Your task to perform on an android device: choose inbox layout in the gmail app Image 0: 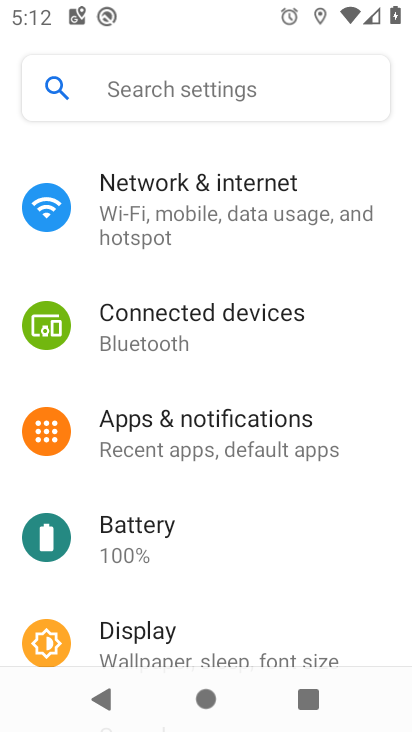
Step 0: press home button
Your task to perform on an android device: choose inbox layout in the gmail app Image 1: 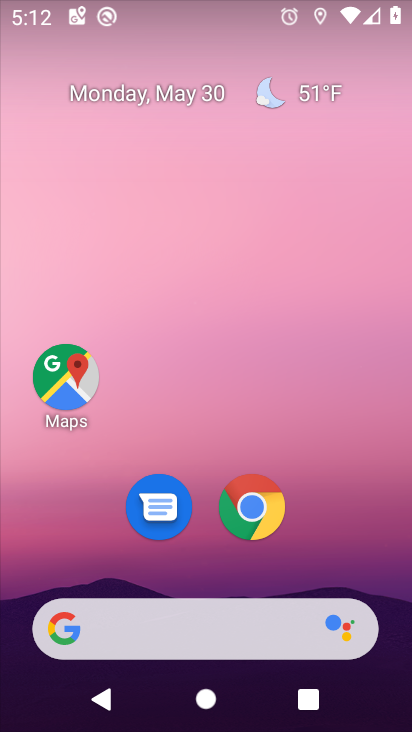
Step 1: drag from (295, 496) to (285, 186)
Your task to perform on an android device: choose inbox layout in the gmail app Image 2: 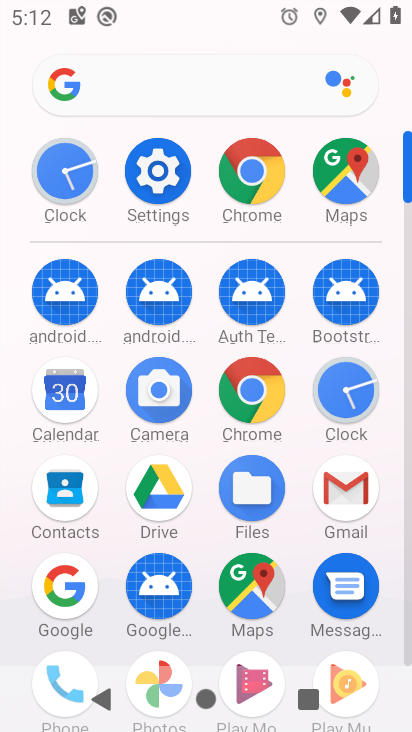
Step 2: click (339, 483)
Your task to perform on an android device: choose inbox layout in the gmail app Image 3: 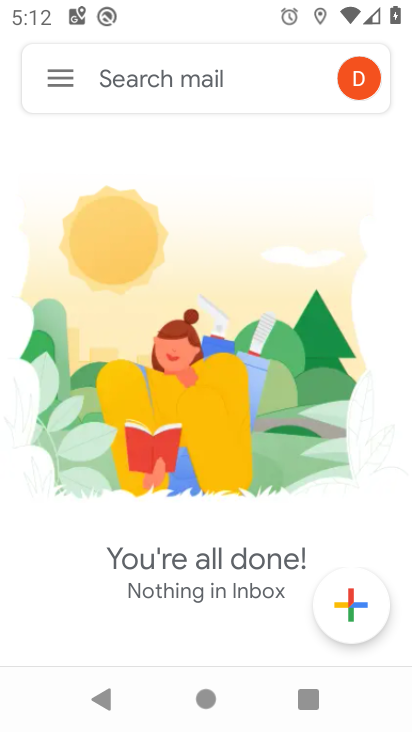
Step 3: click (49, 69)
Your task to perform on an android device: choose inbox layout in the gmail app Image 4: 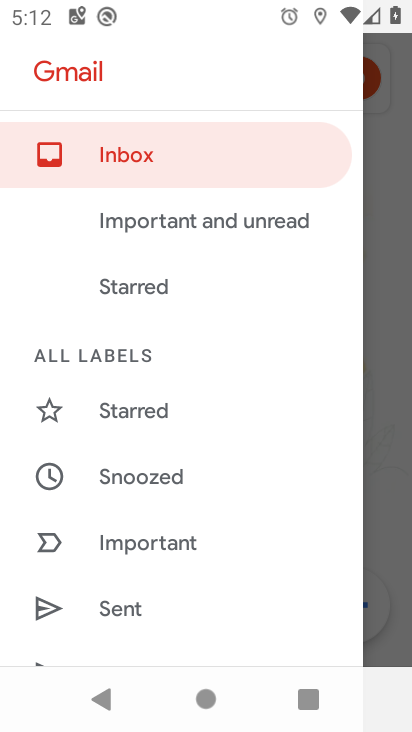
Step 4: drag from (237, 527) to (143, 37)
Your task to perform on an android device: choose inbox layout in the gmail app Image 5: 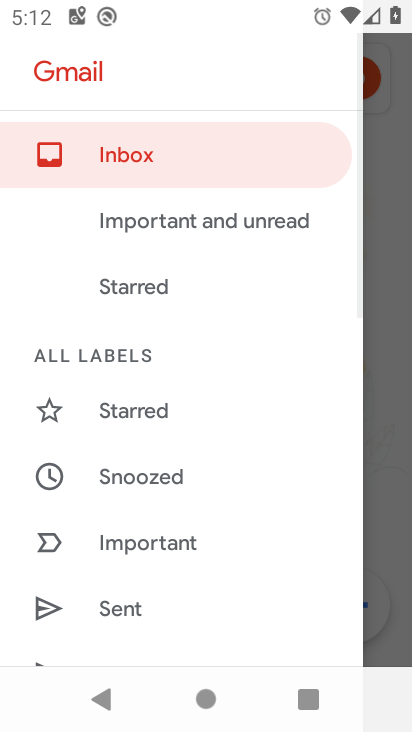
Step 5: drag from (182, 515) to (203, 56)
Your task to perform on an android device: choose inbox layout in the gmail app Image 6: 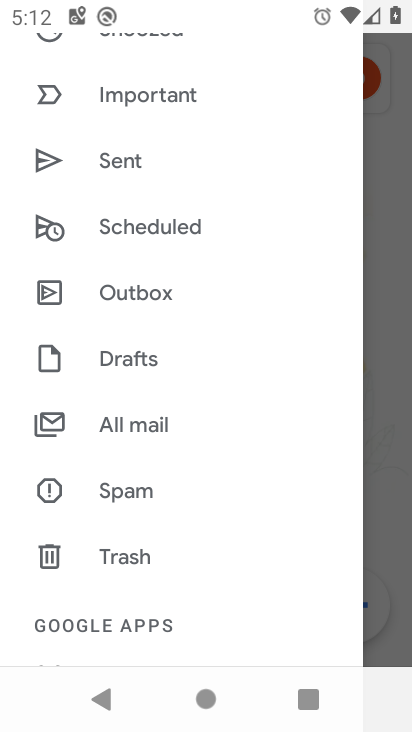
Step 6: drag from (99, 548) to (183, 4)
Your task to perform on an android device: choose inbox layout in the gmail app Image 7: 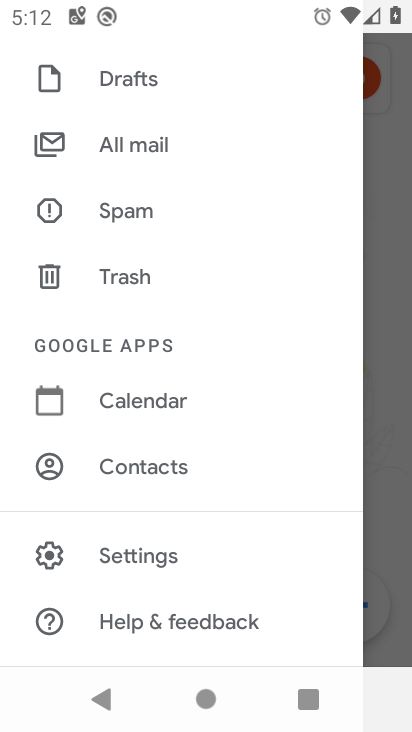
Step 7: click (133, 551)
Your task to perform on an android device: choose inbox layout in the gmail app Image 8: 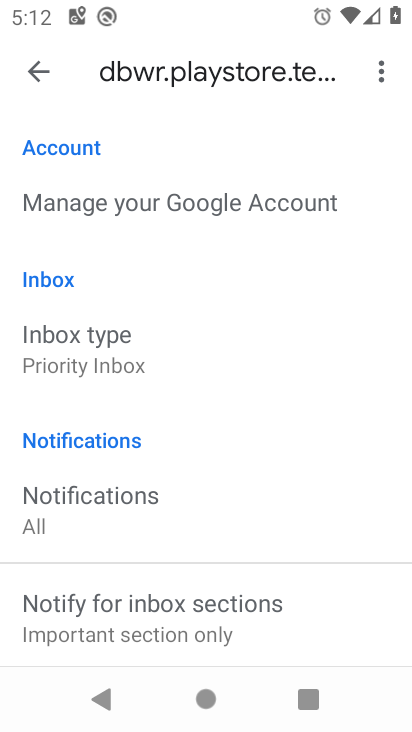
Step 8: click (51, 359)
Your task to perform on an android device: choose inbox layout in the gmail app Image 9: 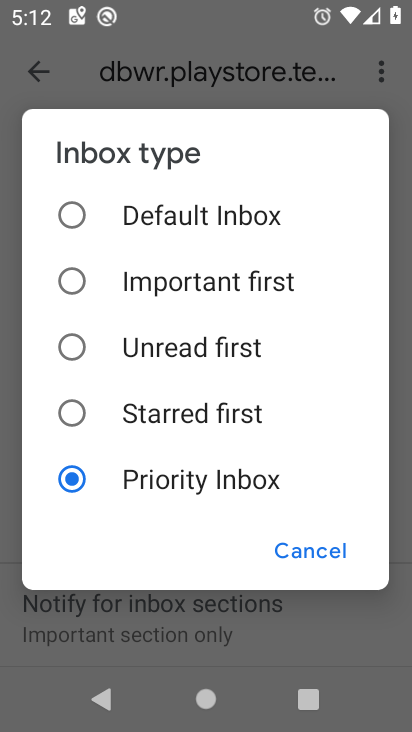
Step 9: click (110, 278)
Your task to perform on an android device: choose inbox layout in the gmail app Image 10: 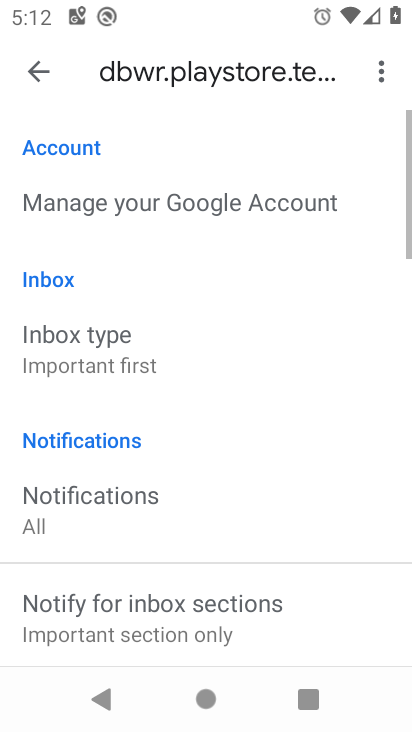
Step 10: task complete